Your task to perform on an android device: turn on improve location accuracy Image 0: 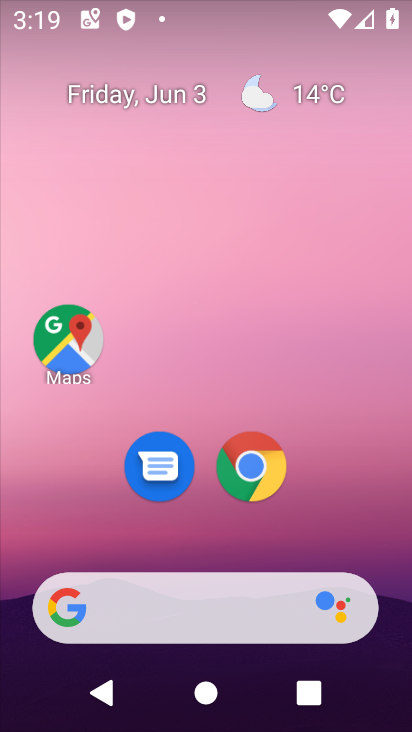
Step 0: drag from (316, 537) to (340, 78)
Your task to perform on an android device: turn on improve location accuracy Image 1: 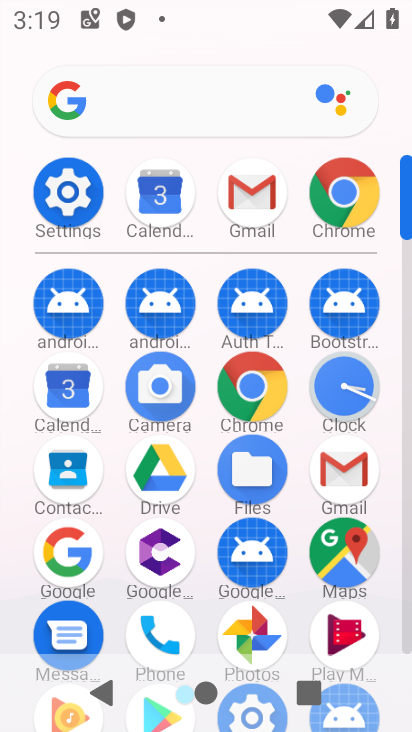
Step 1: click (54, 198)
Your task to perform on an android device: turn on improve location accuracy Image 2: 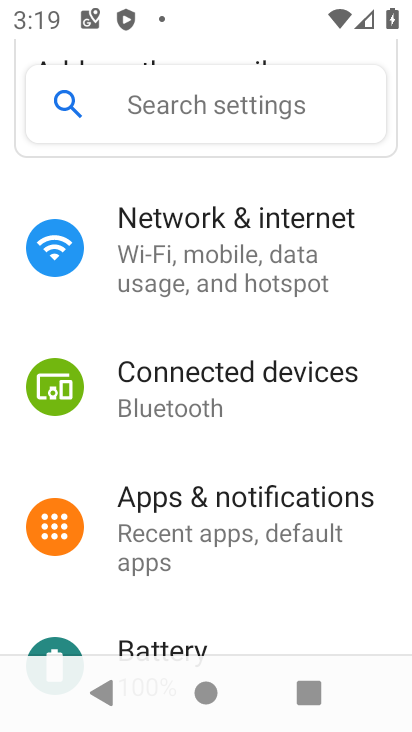
Step 2: drag from (293, 535) to (325, 223)
Your task to perform on an android device: turn on improve location accuracy Image 3: 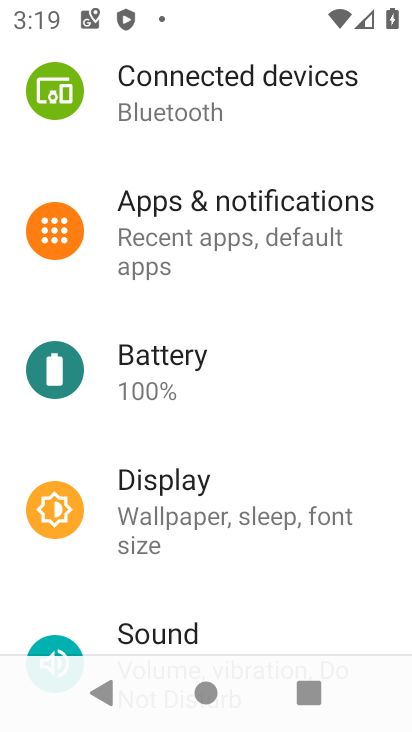
Step 3: drag from (223, 470) to (275, 142)
Your task to perform on an android device: turn on improve location accuracy Image 4: 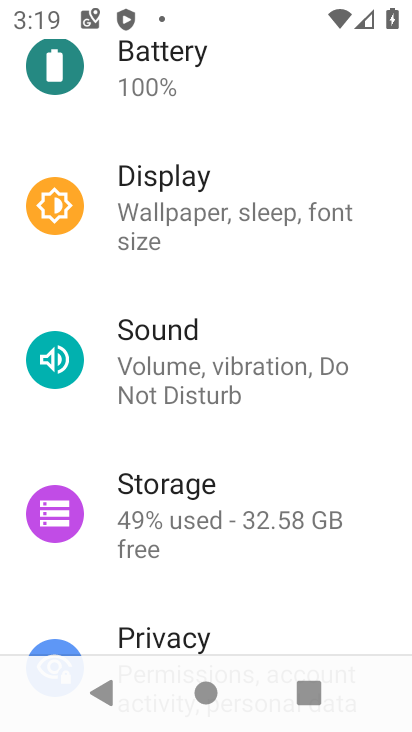
Step 4: drag from (193, 568) to (202, 236)
Your task to perform on an android device: turn on improve location accuracy Image 5: 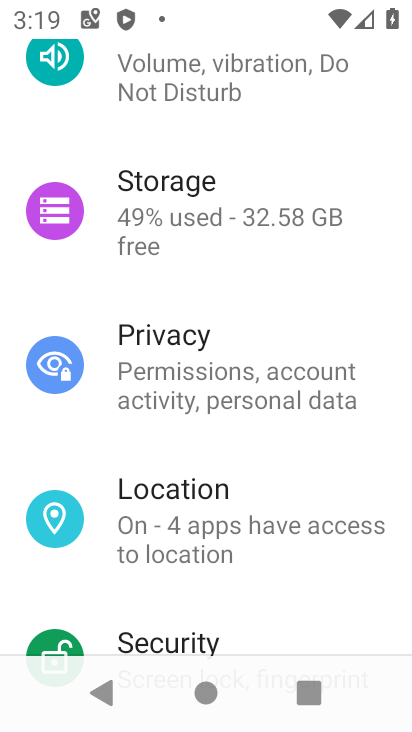
Step 5: click (179, 554)
Your task to perform on an android device: turn on improve location accuracy Image 6: 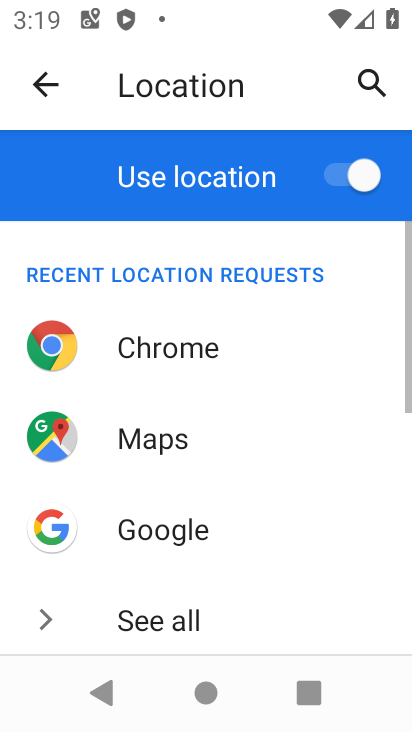
Step 6: drag from (171, 551) to (192, 135)
Your task to perform on an android device: turn on improve location accuracy Image 7: 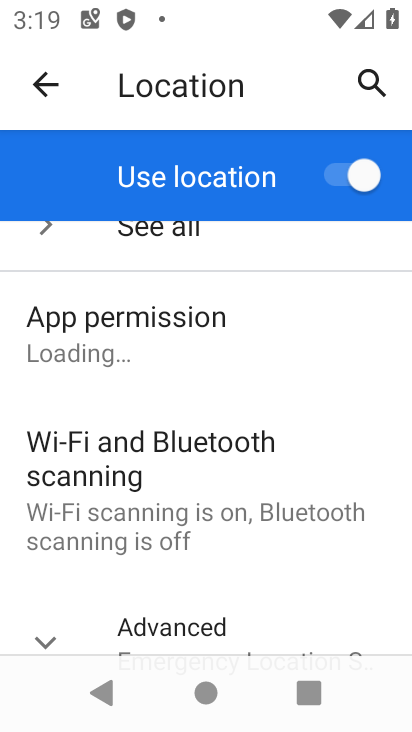
Step 7: click (168, 620)
Your task to perform on an android device: turn on improve location accuracy Image 8: 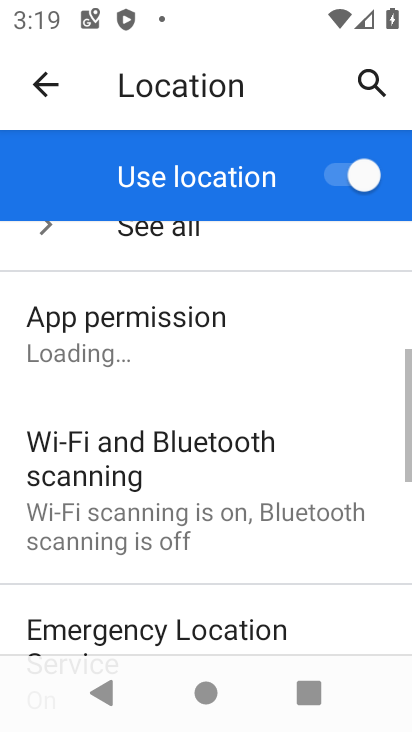
Step 8: drag from (167, 611) to (229, 207)
Your task to perform on an android device: turn on improve location accuracy Image 9: 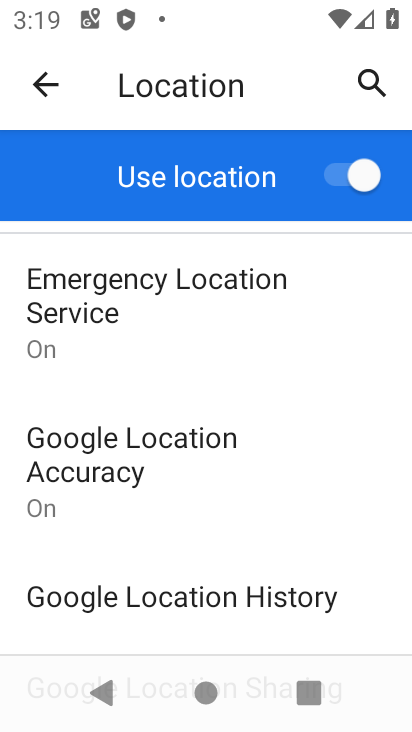
Step 9: click (173, 432)
Your task to perform on an android device: turn on improve location accuracy Image 10: 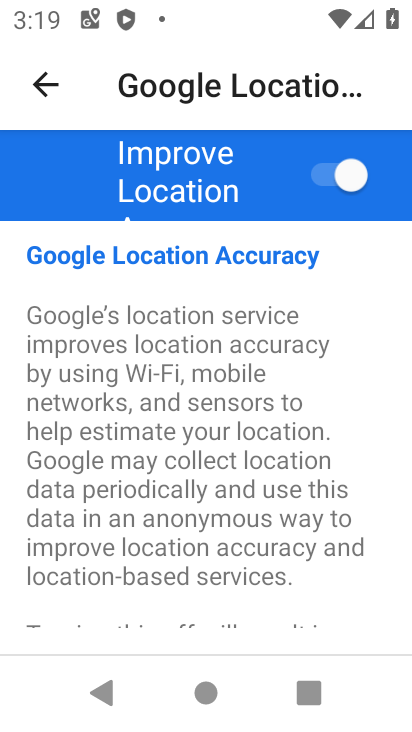
Step 10: task complete